Your task to perform on an android device: Open eBay Image 0: 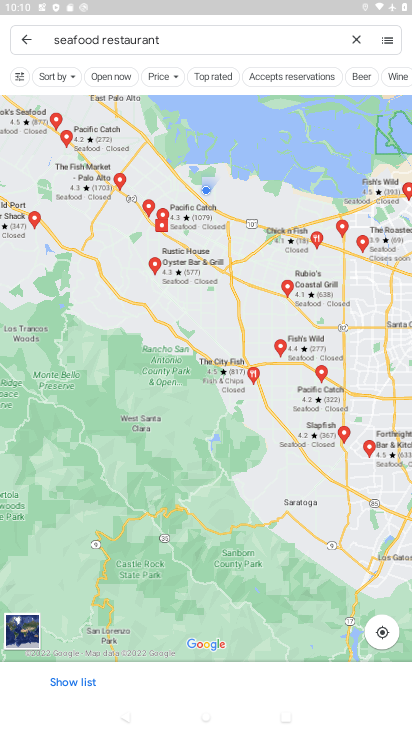
Step 0: task complete